Your task to perform on an android device: Open the calendar app, open the side menu, and click the "Day" option Image 0: 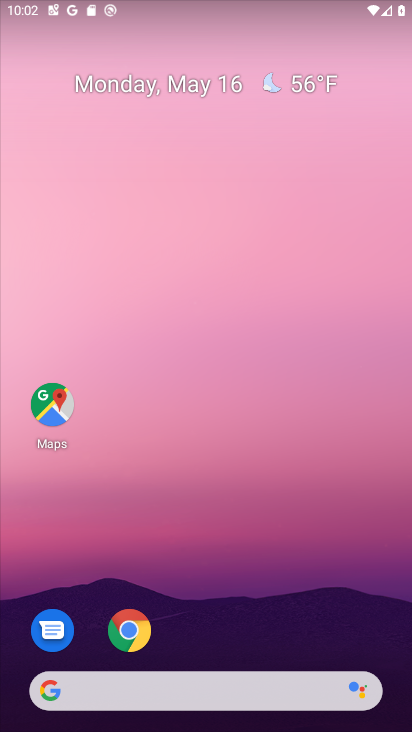
Step 0: drag from (280, 610) to (246, 104)
Your task to perform on an android device: Open the calendar app, open the side menu, and click the "Day" option Image 1: 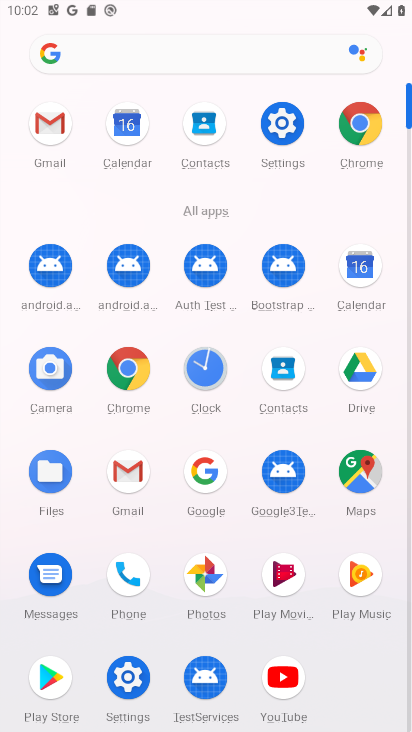
Step 1: click (130, 129)
Your task to perform on an android device: Open the calendar app, open the side menu, and click the "Day" option Image 2: 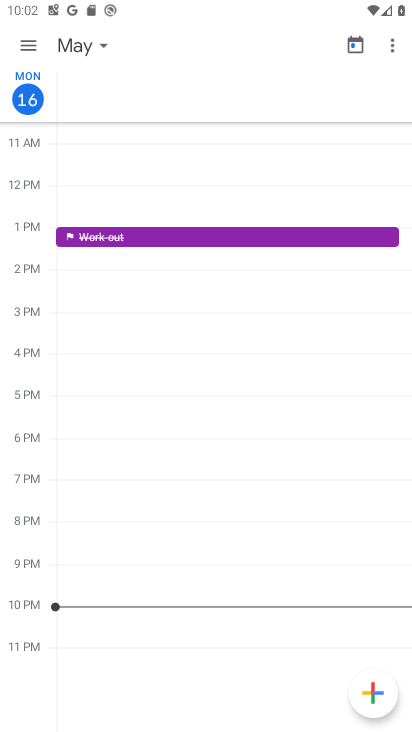
Step 2: click (29, 39)
Your task to perform on an android device: Open the calendar app, open the side menu, and click the "Day" option Image 3: 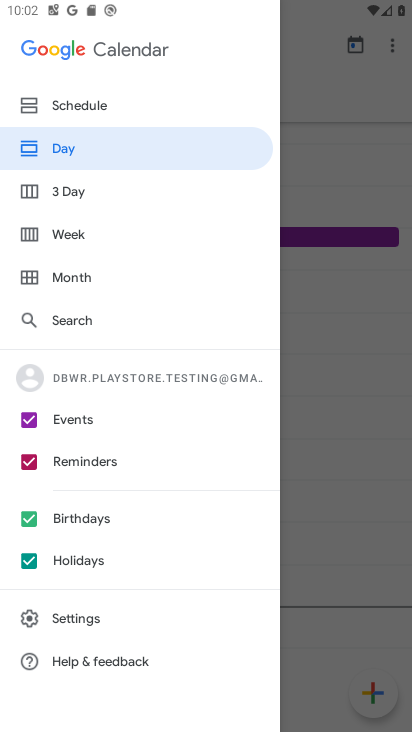
Step 3: click (40, 143)
Your task to perform on an android device: Open the calendar app, open the side menu, and click the "Day" option Image 4: 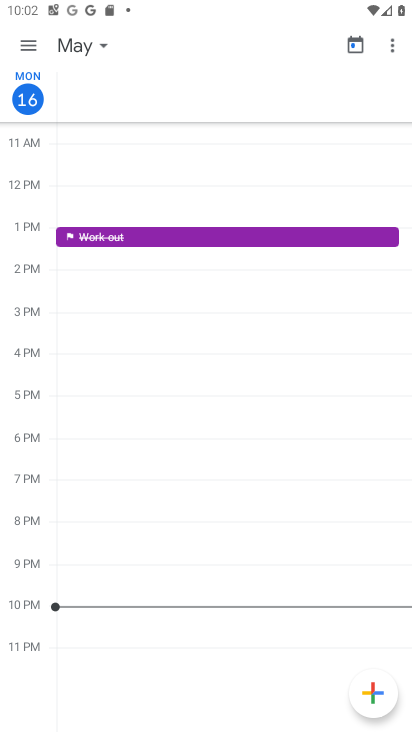
Step 4: task complete